Your task to perform on an android device: Find coffee shops on Maps Image 0: 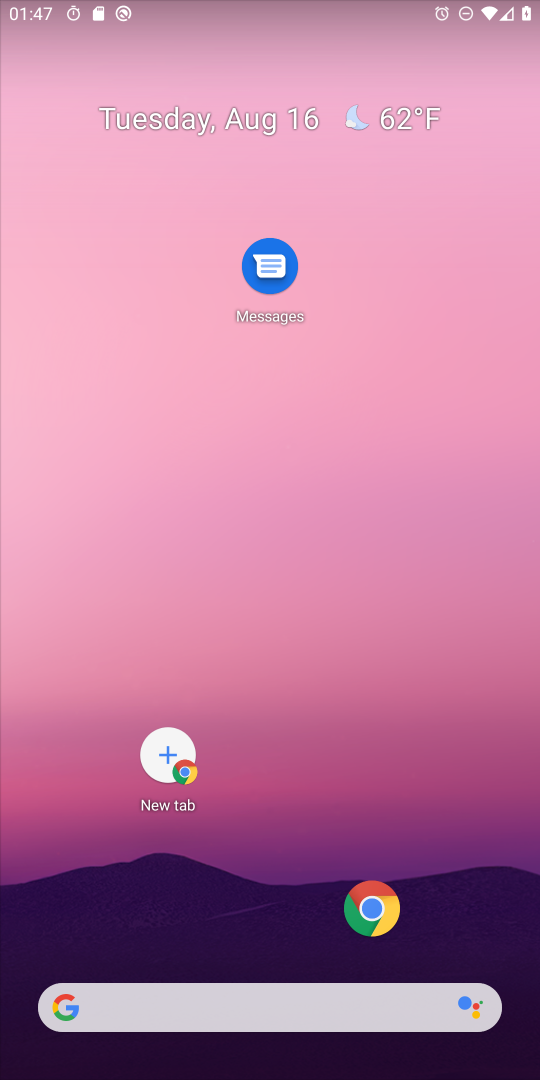
Step 0: drag from (242, 970) to (167, 206)
Your task to perform on an android device: Find coffee shops on Maps Image 1: 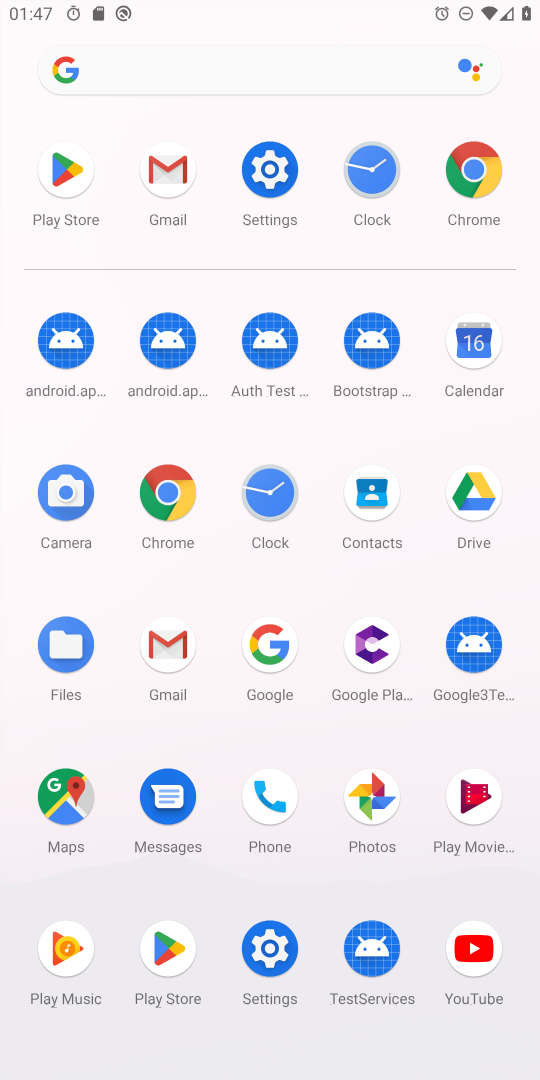
Step 1: drag from (246, 836) to (173, 194)
Your task to perform on an android device: Find coffee shops on Maps Image 2: 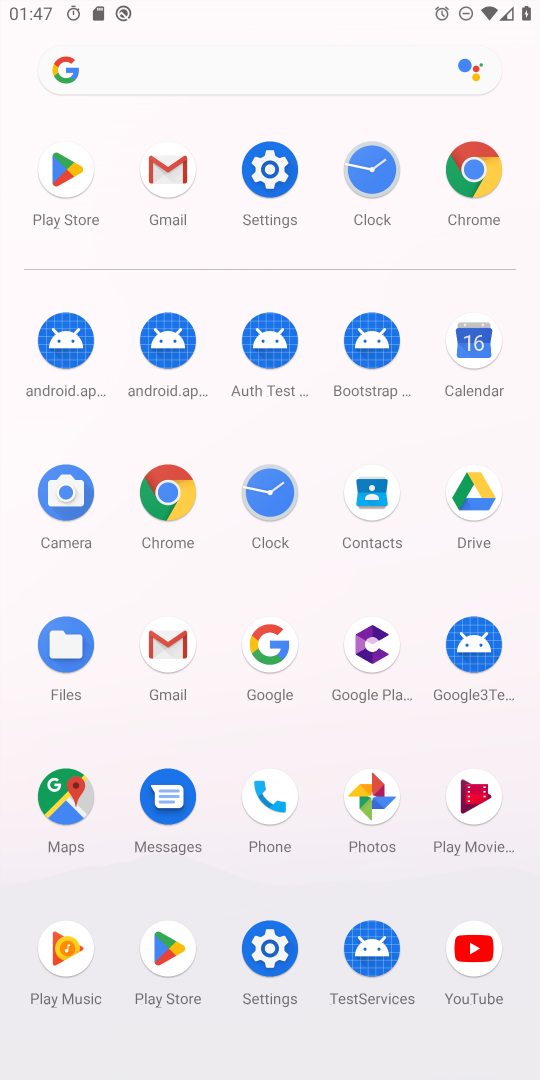
Step 2: click (48, 851)
Your task to perform on an android device: Find coffee shops on Maps Image 3: 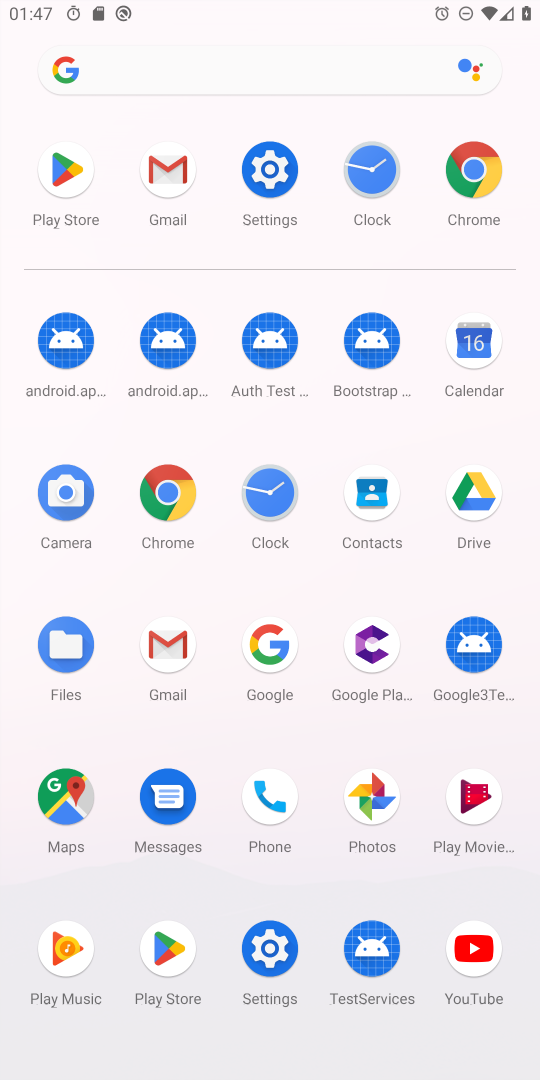
Step 3: click (50, 800)
Your task to perform on an android device: Find coffee shops on Maps Image 4: 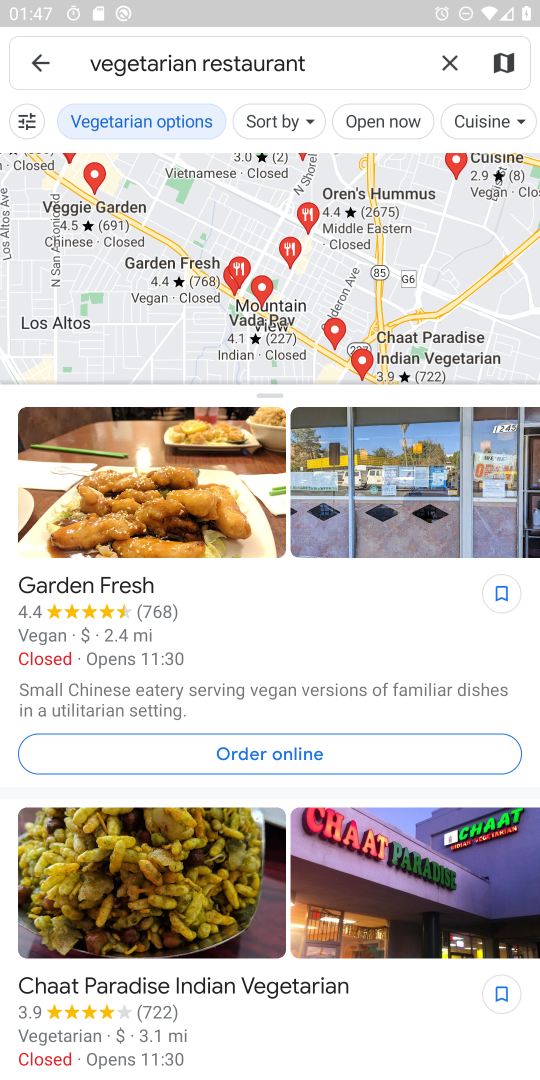
Step 4: click (452, 64)
Your task to perform on an android device: Find coffee shops on Maps Image 5: 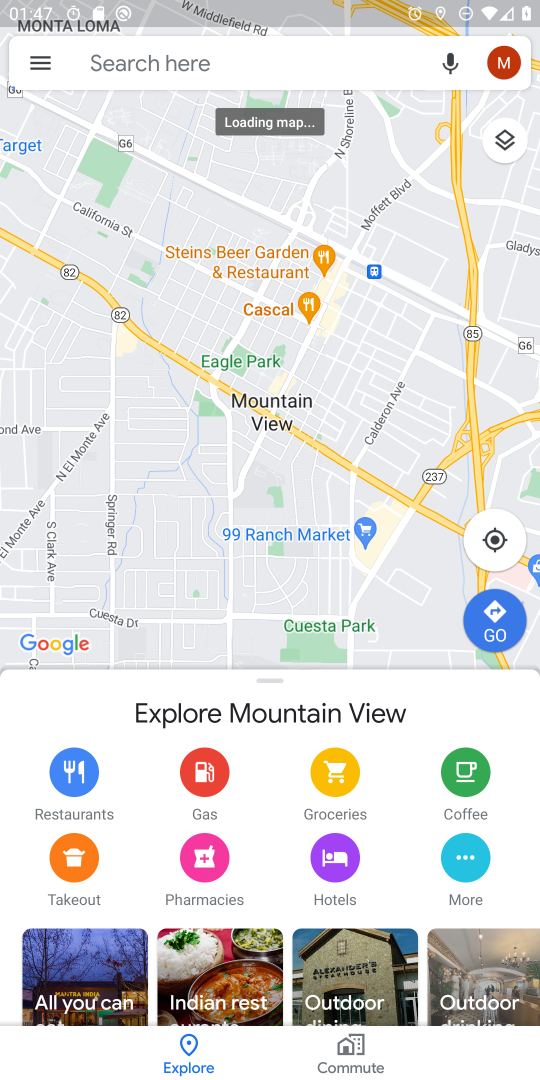
Step 5: click (438, 61)
Your task to perform on an android device: Find coffee shops on Maps Image 6: 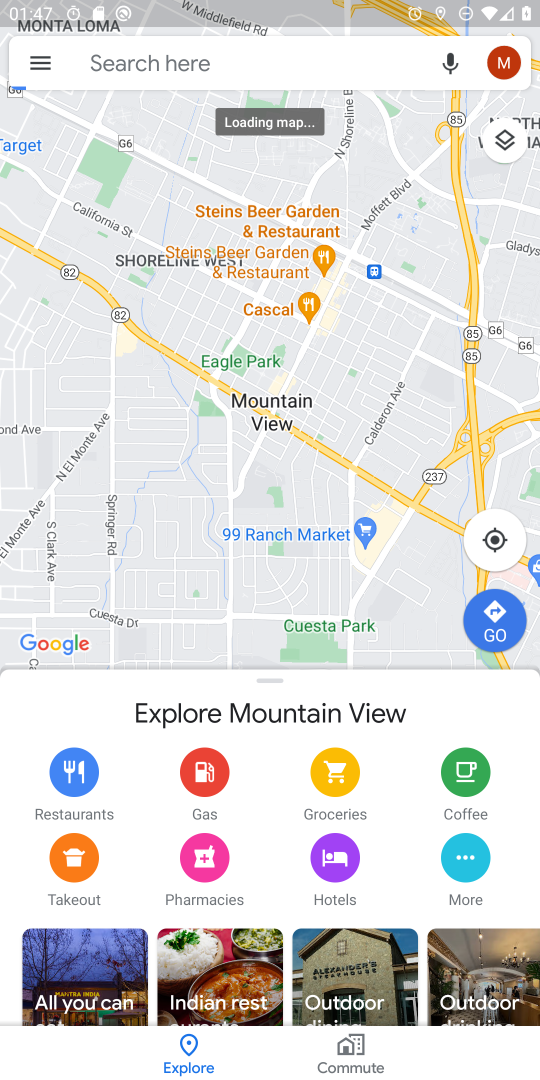
Step 6: click (387, 60)
Your task to perform on an android device: Find coffee shops on Maps Image 7: 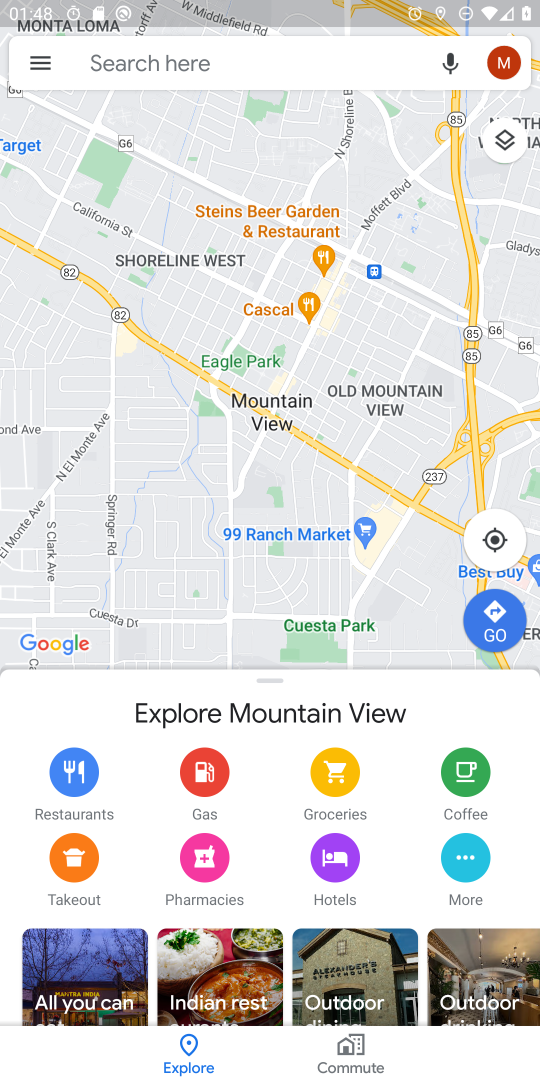
Step 7: click (229, 71)
Your task to perform on an android device: Find coffee shops on Maps Image 8: 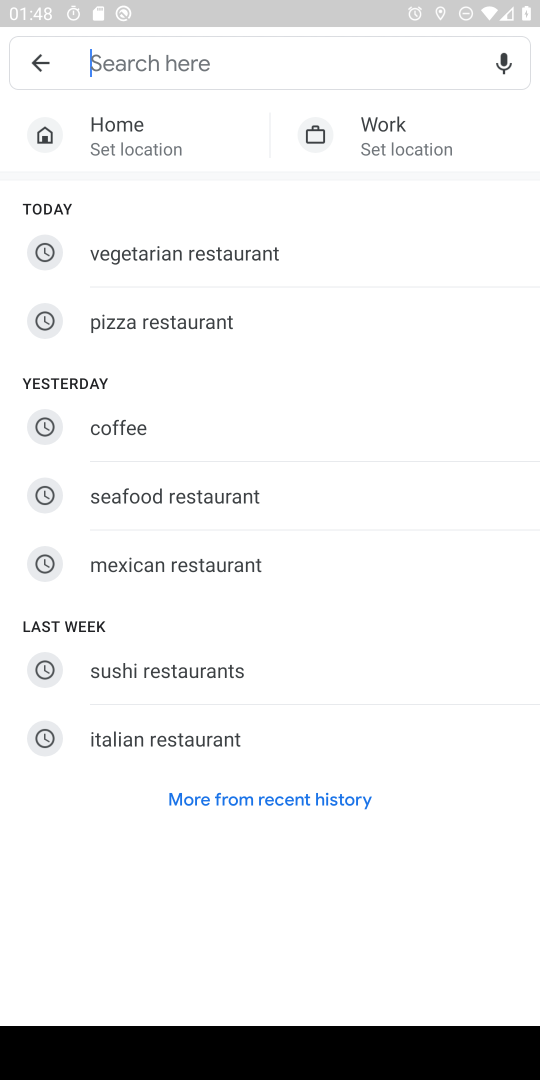
Step 8: click (157, 442)
Your task to perform on an android device: Find coffee shops on Maps Image 9: 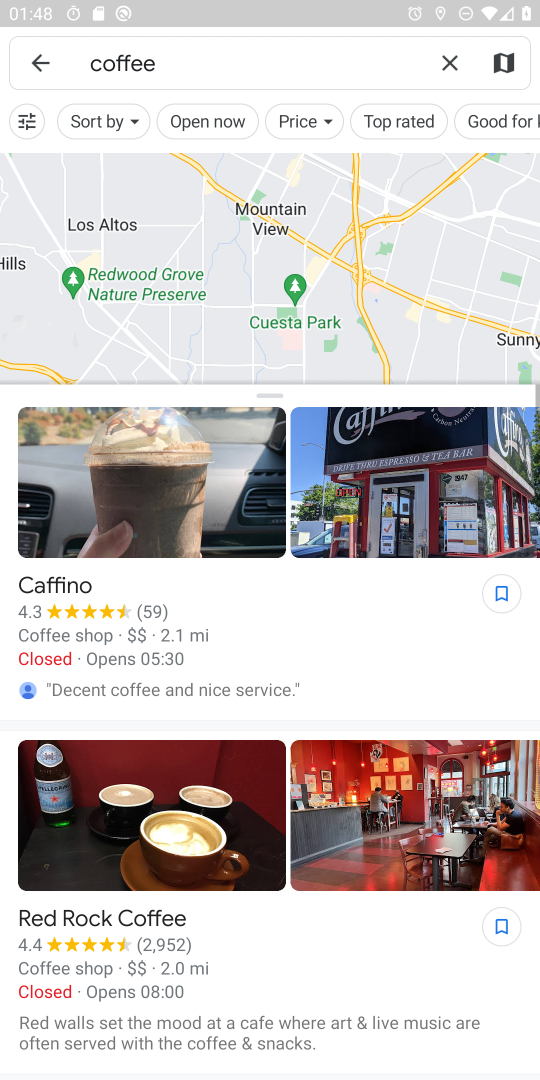
Step 9: task complete